Your task to perform on an android device: Go to privacy settings Image 0: 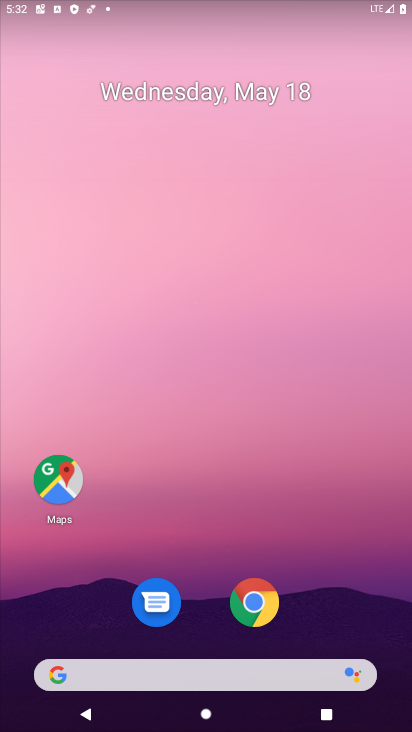
Step 0: drag from (261, 696) to (314, 75)
Your task to perform on an android device: Go to privacy settings Image 1: 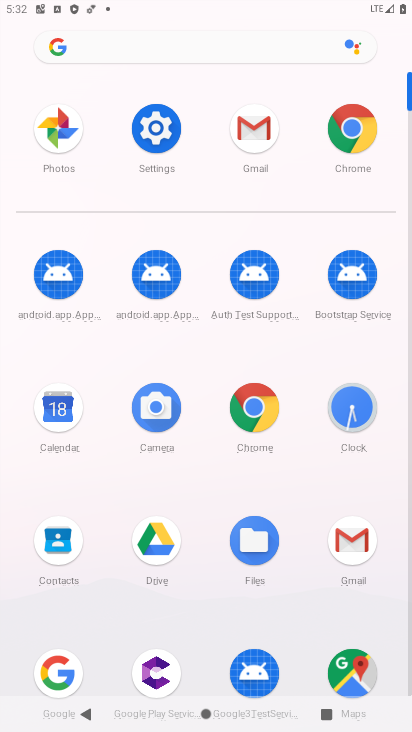
Step 1: click (156, 127)
Your task to perform on an android device: Go to privacy settings Image 2: 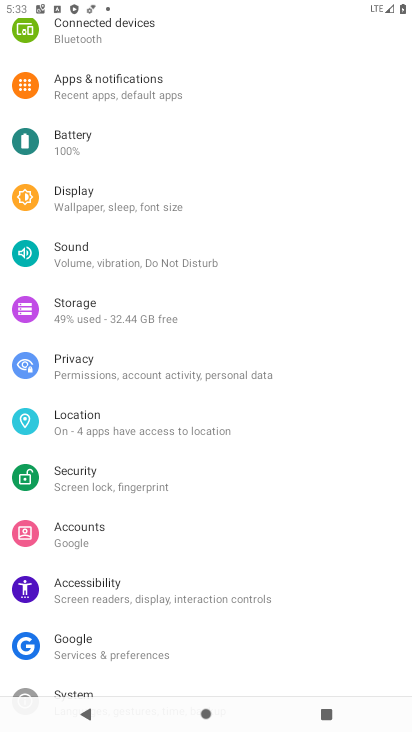
Step 2: click (92, 361)
Your task to perform on an android device: Go to privacy settings Image 3: 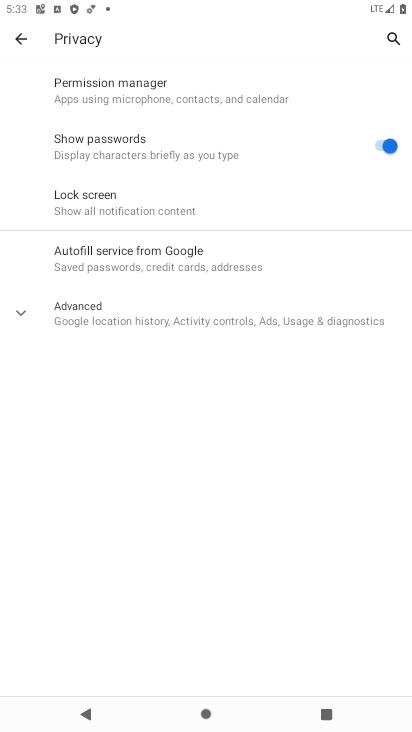
Step 3: task complete